Your task to perform on an android device: Open ESPN.com Image 0: 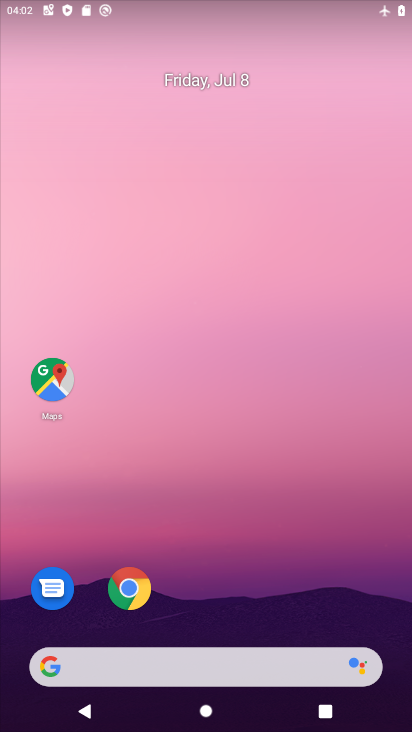
Step 0: click (128, 592)
Your task to perform on an android device: Open ESPN.com Image 1: 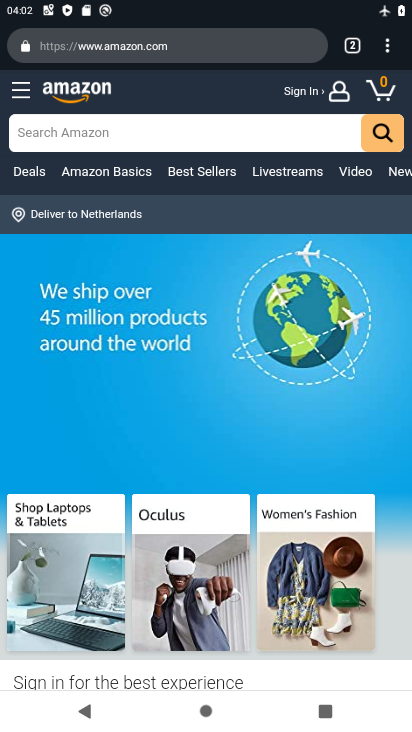
Step 1: press back button
Your task to perform on an android device: Open ESPN.com Image 2: 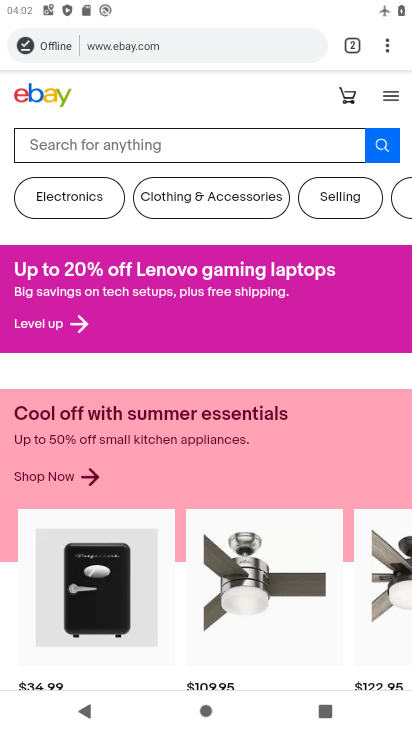
Step 2: press back button
Your task to perform on an android device: Open ESPN.com Image 3: 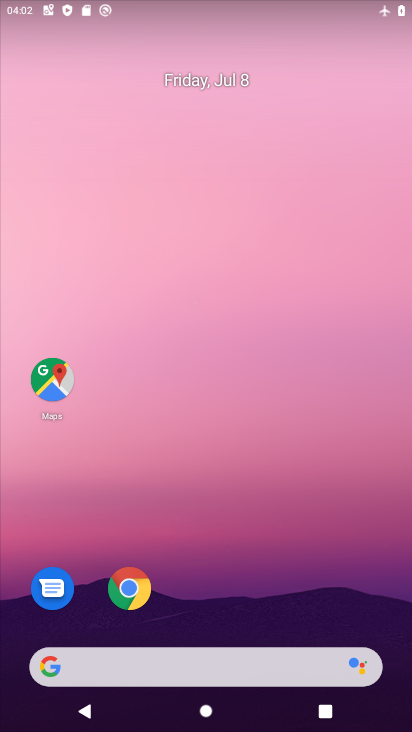
Step 3: click (130, 593)
Your task to perform on an android device: Open ESPN.com Image 4: 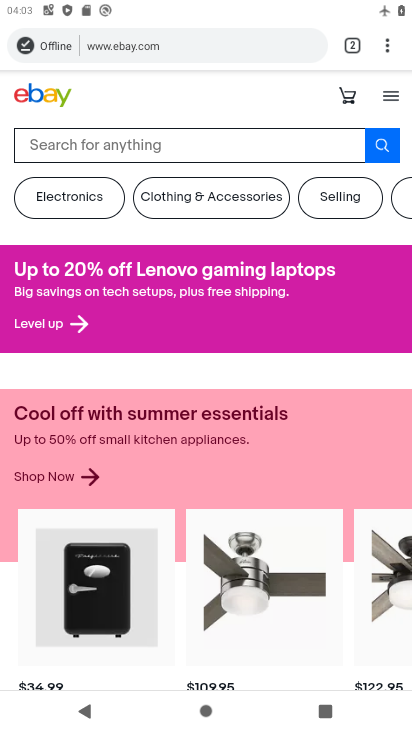
Step 4: click (356, 49)
Your task to perform on an android device: Open ESPN.com Image 5: 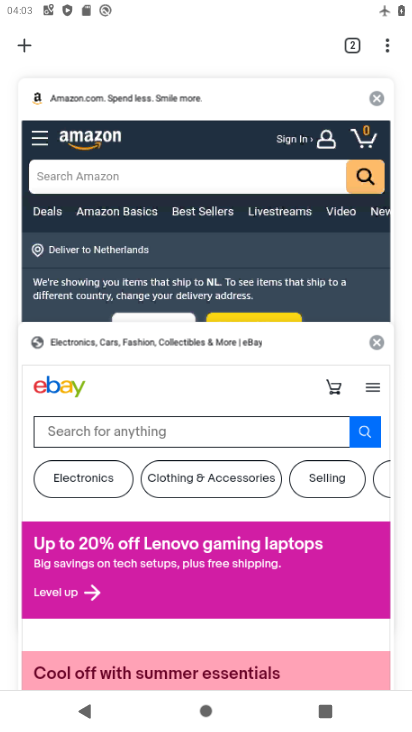
Step 5: click (24, 45)
Your task to perform on an android device: Open ESPN.com Image 6: 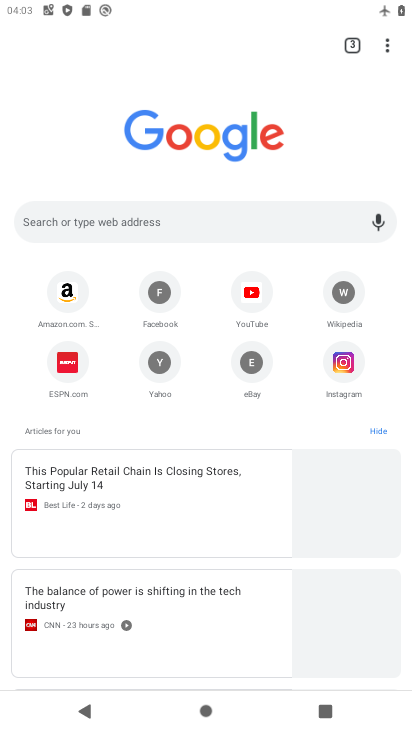
Step 6: click (55, 375)
Your task to perform on an android device: Open ESPN.com Image 7: 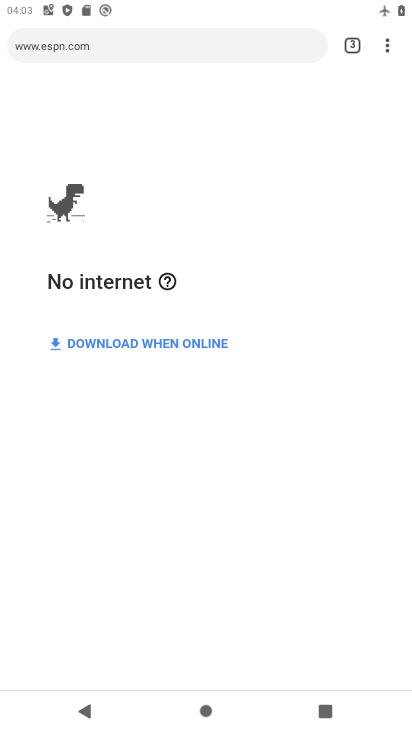
Step 7: task complete